Your task to perform on an android device: Open privacy settings Image 0: 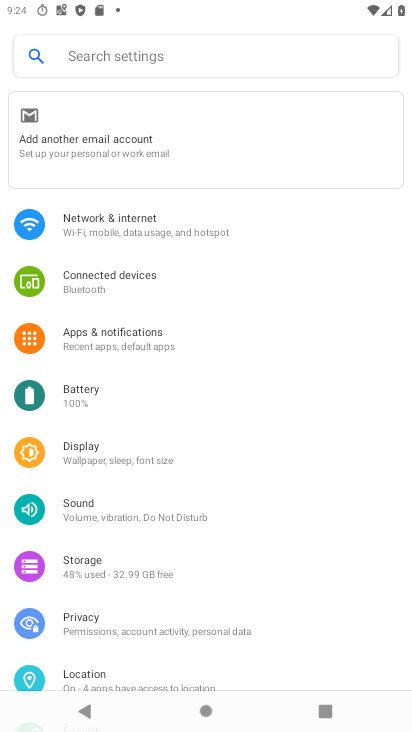
Step 0: press back button
Your task to perform on an android device: Open privacy settings Image 1: 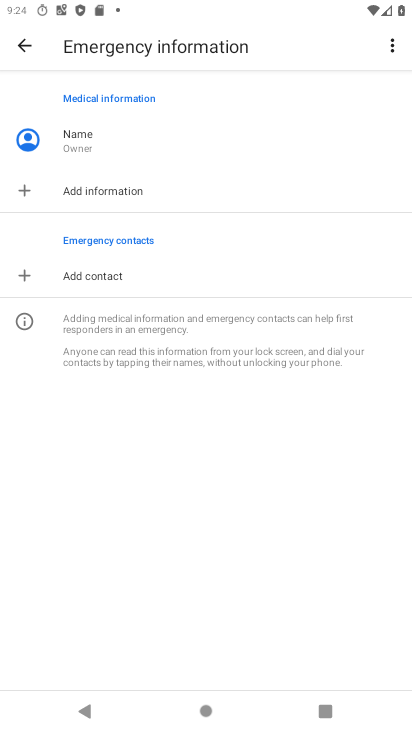
Step 1: press back button
Your task to perform on an android device: Open privacy settings Image 2: 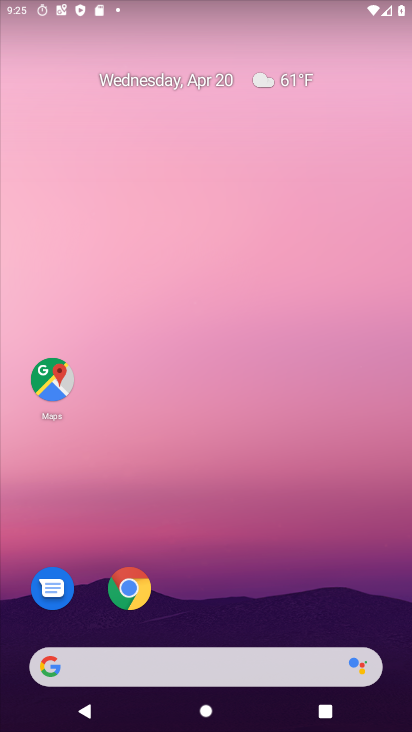
Step 2: drag from (363, 553) to (235, 33)
Your task to perform on an android device: Open privacy settings Image 3: 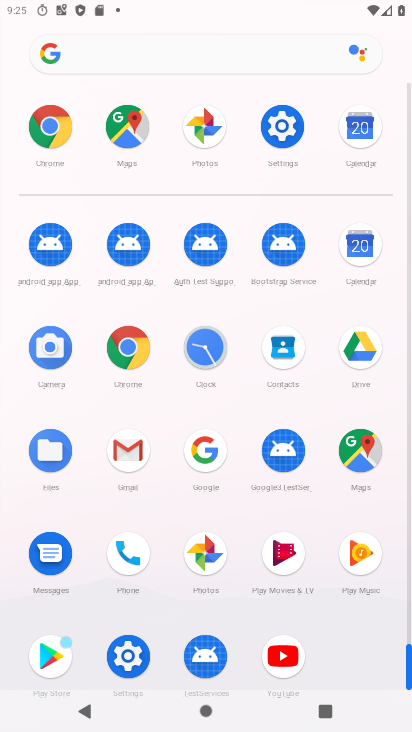
Step 3: drag from (5, 577) to (21, 312)
Your task to perform on an android device: Open privacy settings Image 4: 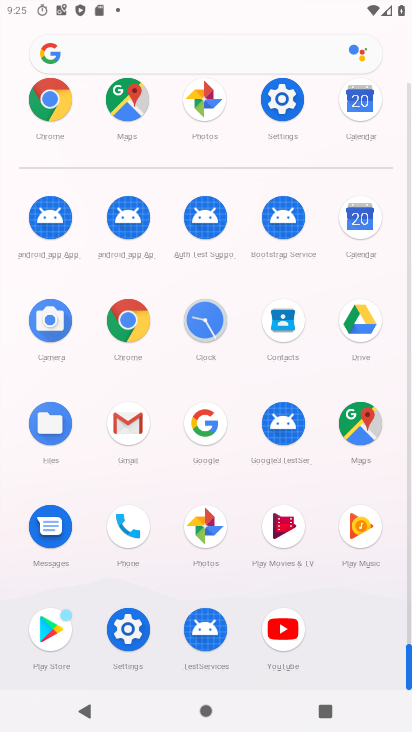
Step 4: click (128, 632)
Your task to perform on an android device: Open privacy settings Image 5: 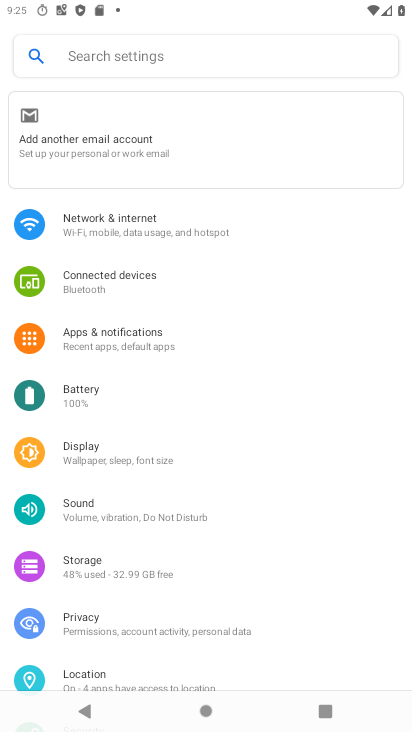
Step 5: drag from (276, 610) to (250, 204)
Your task to perform on an android device: Open privacy settings Image 6: 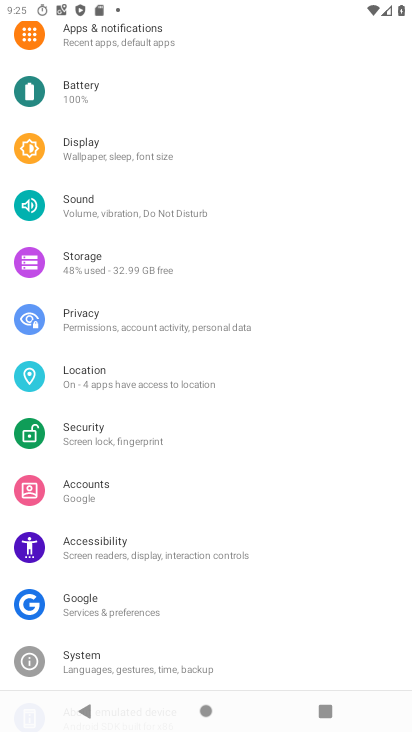
Step 6: drag from (226, 658) to (203, 213)
Your task to perform on an android device: Open privacy settings Image 7: 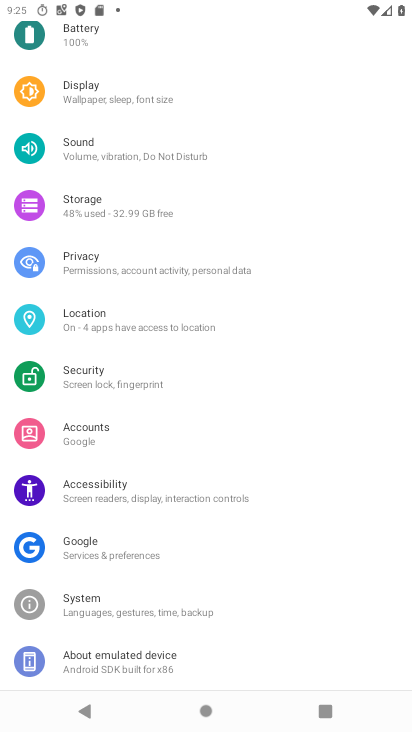
Step 7: drag from (280, 123) to (285, 492)
Your task to perform on an android device: Open privacy settings Image 8: 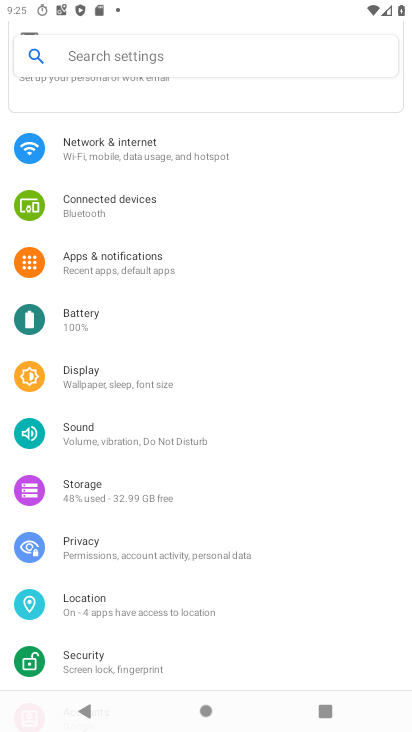
Step 8: drag from (229, 494) to (212, 209)
Your task to perform on an android device: Open privacy settings Image 9: 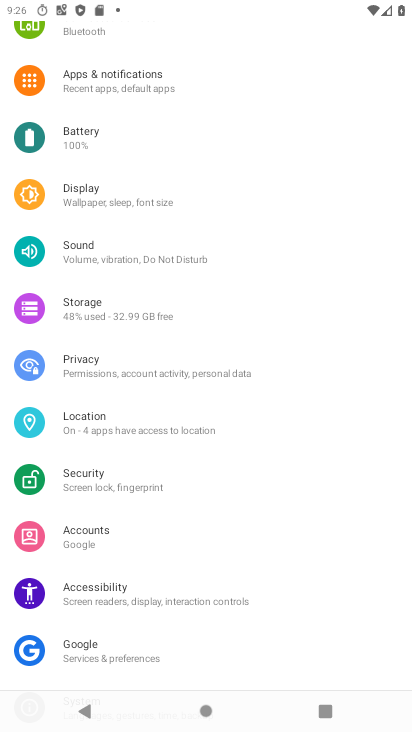
Step 9: press back button
Your task to perform on an android device: Open privacy settings Image 10: 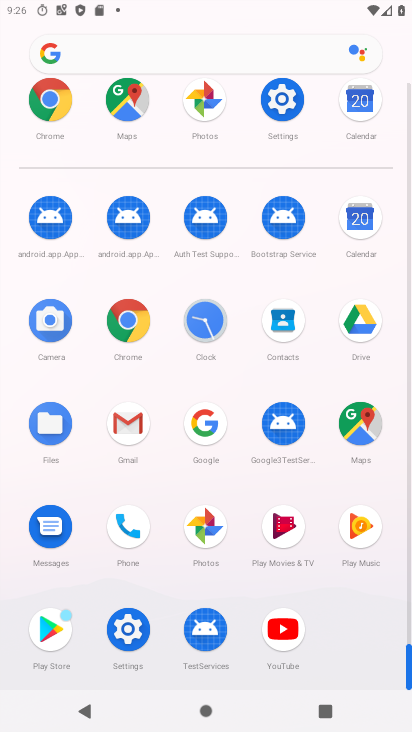
Step 10: click (131, 317)
Your task to perform on an android device: Open privacy settings Image 11: 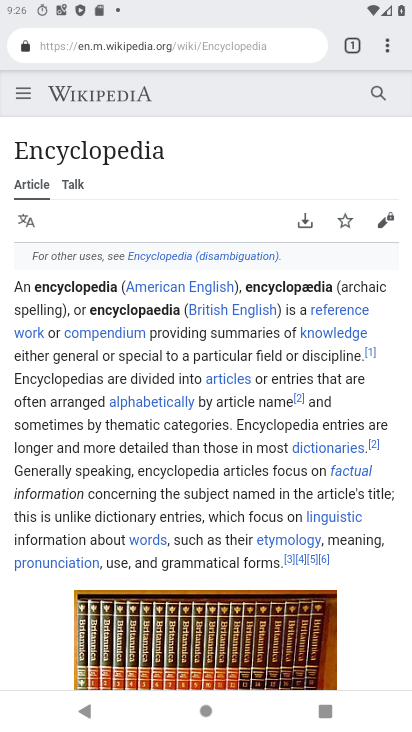
Step 11: drag from (389, 41) to (257, 595)
Your task to perform on an android device: Open privacy settings Image 12: 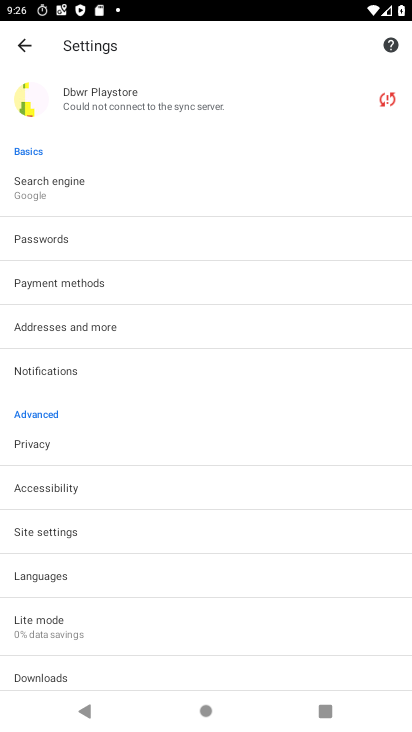
Step 12: click (71, 433)
Your task to perform on an android device: Open privacy settings Image 13: 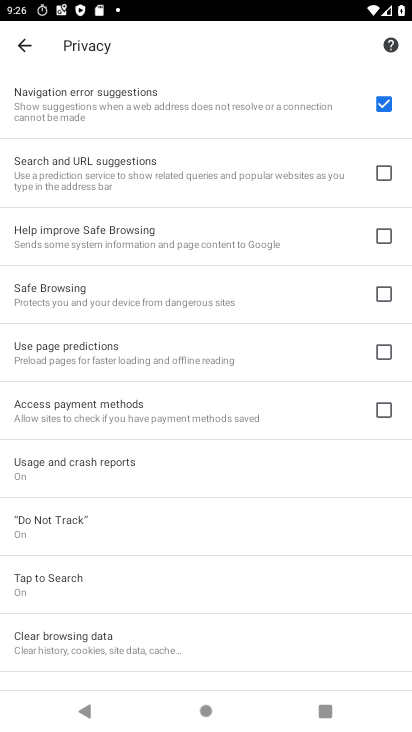
Step 13: task complete